Your task to perform on an android device: turn off sleep mode Image 0: 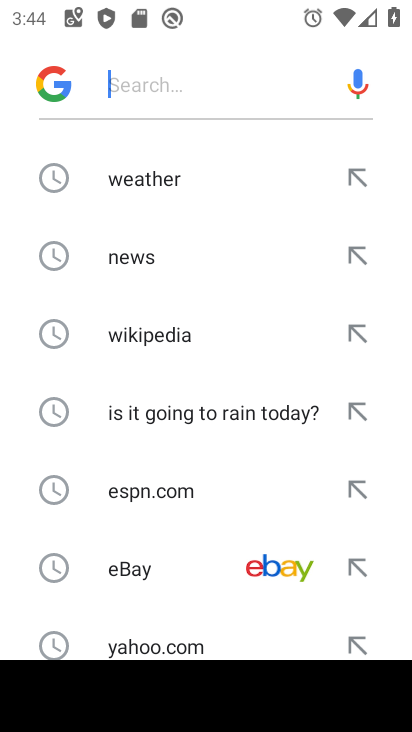
Step 0: press home button
Your task to perform on an android device: turn off sleep mode Image 1: 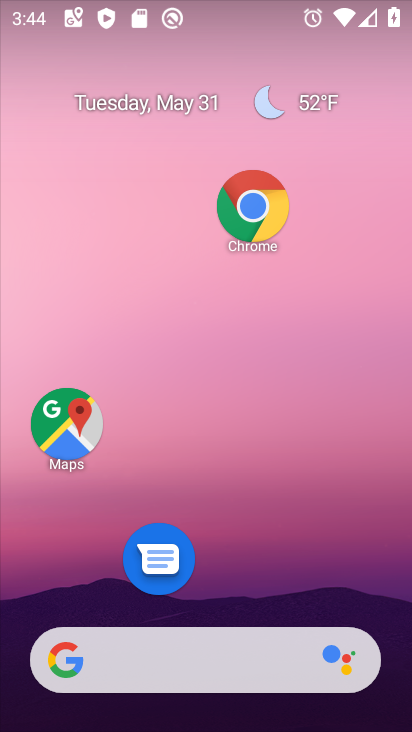
Step 1: drag from (223, 599) to (192, 219)
Your task to perform on an android device: turn off sleep mode Image 2: 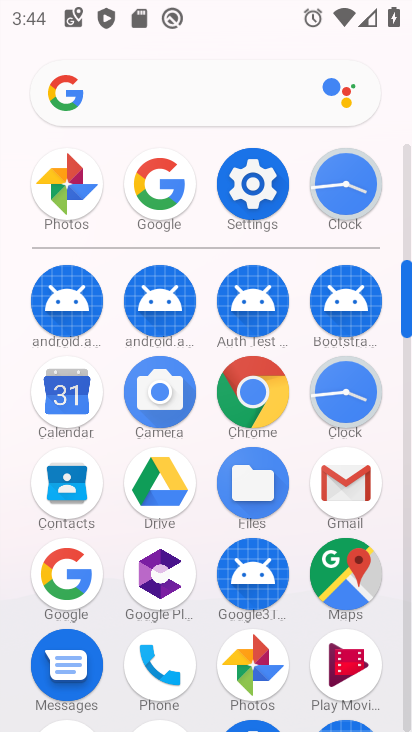
Step 2: click (250, 201)
Your task to perform on an android device: turn off sleep mode Image 3: 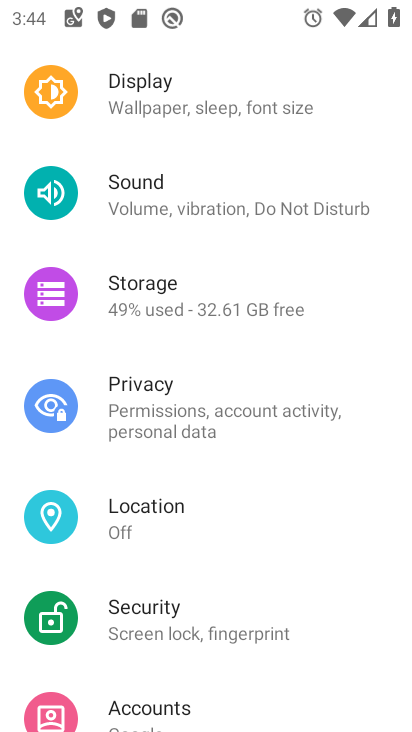
Step 3: click (202, 96)
Your task to perform on an android device: turn off sleep mode Image 4: 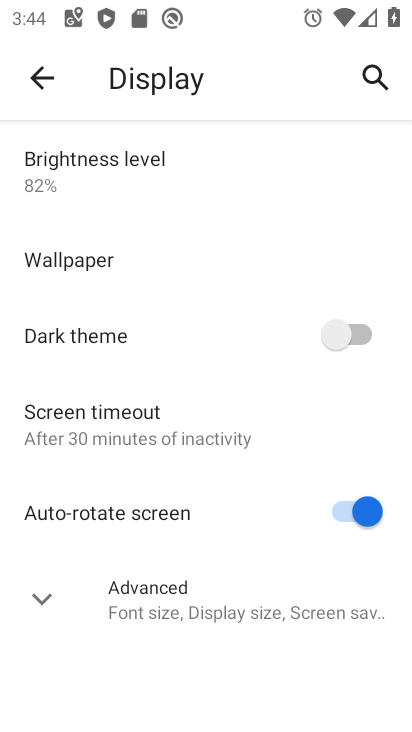
Step 4: click (143, 420)
Your task to perform on an android device: turn off sleep mode Image 5: 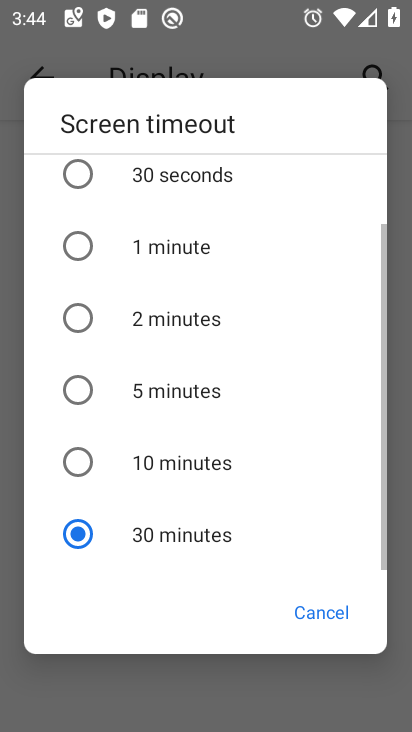
Step 5: click (163, 186)
Your task to perform on an android device: turn off sleep mode Image 6: 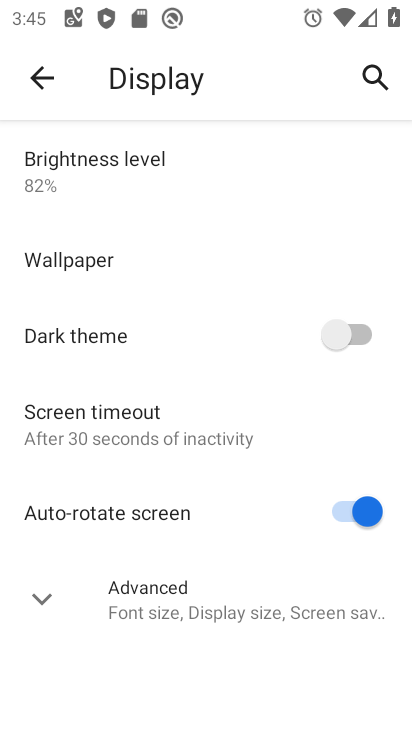
Step 6: task complete